Your task to perform on an android device: open a new tab in the chrome app Image 0: 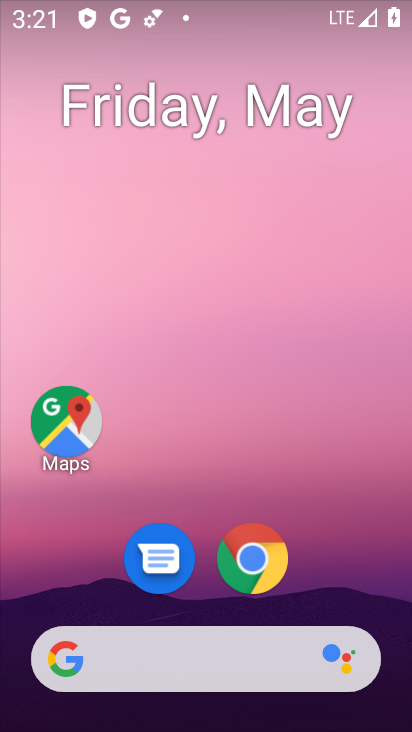
Step 0: press home button
Your task to perform on an android device: open a new tab in the chrome app Image 1: 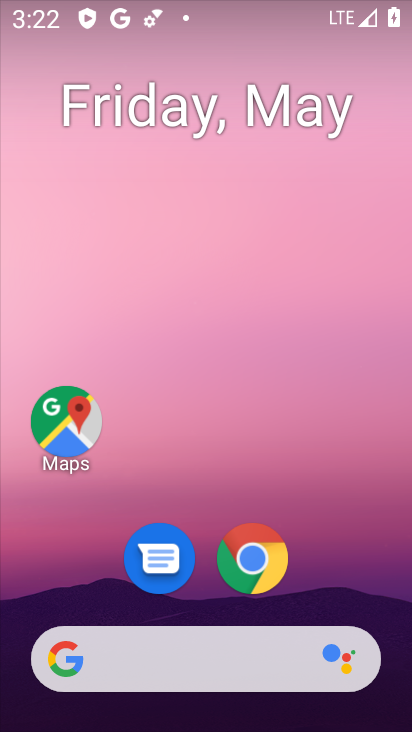
Step 1: click (256, 562)
Your task to perform on an android device: open a new tab in the chrome app Image 2: 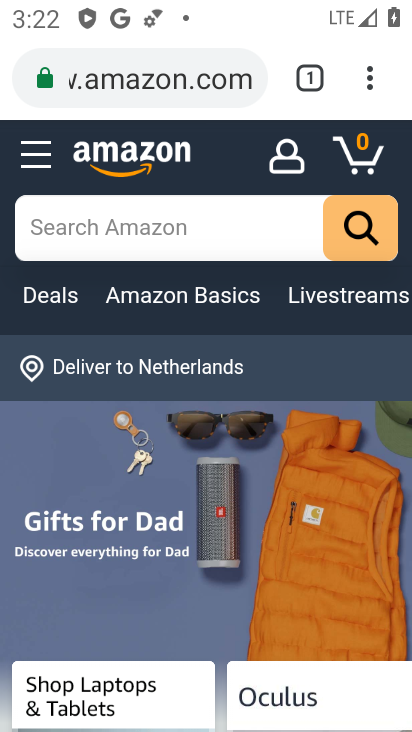
Step 2: task complete